Your task to perform on an android device: turn off sleep mode Image 0: 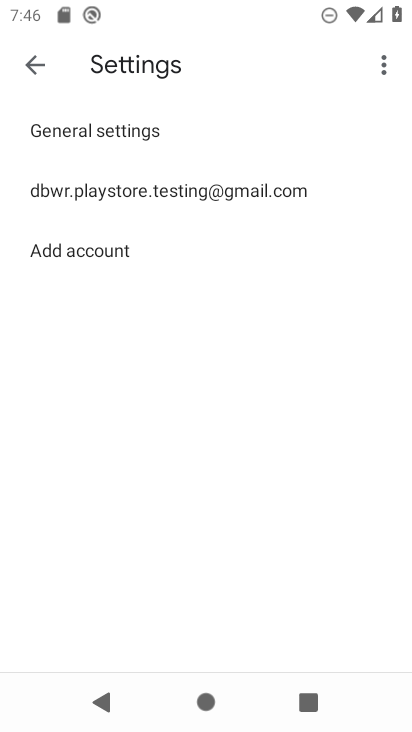
Step 0: press home button
Your task to perform on an android device: turn off sleep mode Image 1: 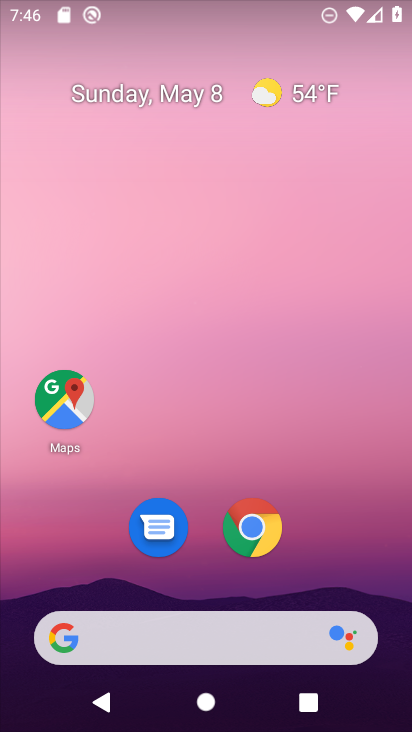
Step 1: drag from (341, 551) to (393, 108)
Your task to perform on an android device: turn off sleep mode Image 2: 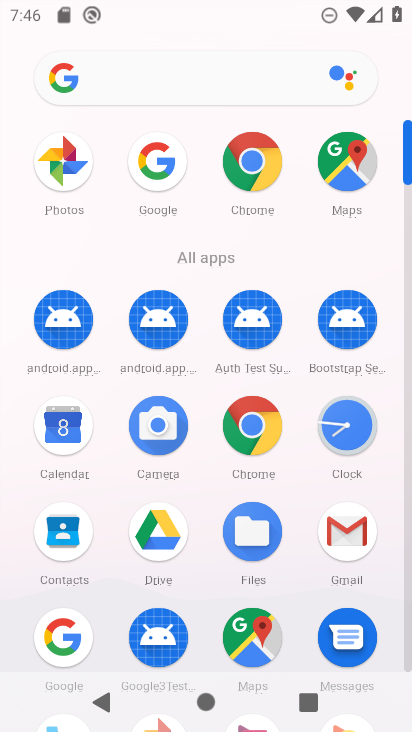
Step 2: drag from (292, 559) to (397, 134)
Your task to perform on an android device: turn off sleep mode Image 3: 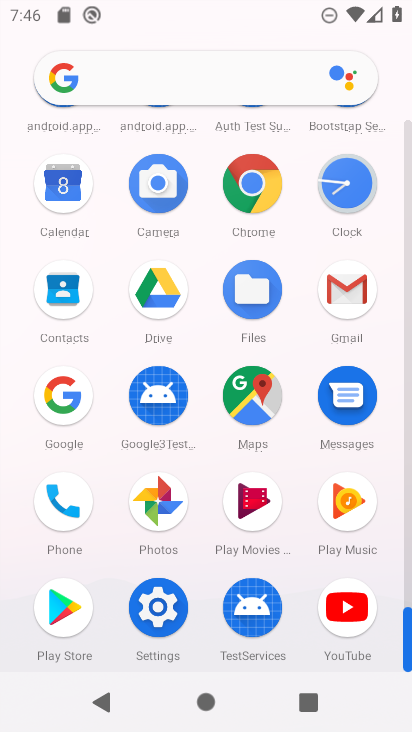
Step 3: click (145, 581)
Your task to perform on an android device: turn off sleep mode Image 4: 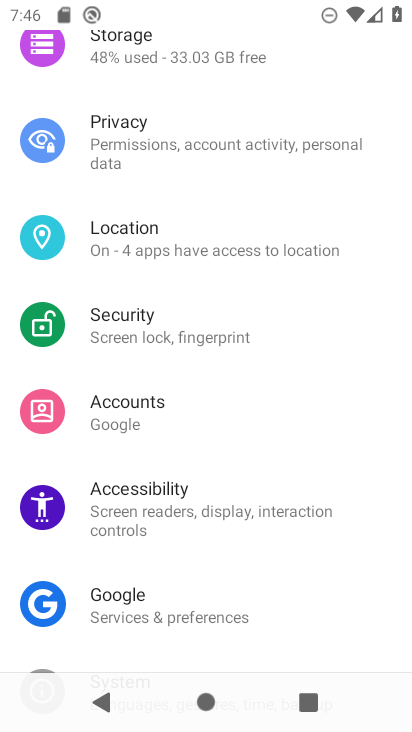
Step 4: drag from (285, 154) to (231, 460)
Your task to perform on an android device: turn off sleep mode Image 5: 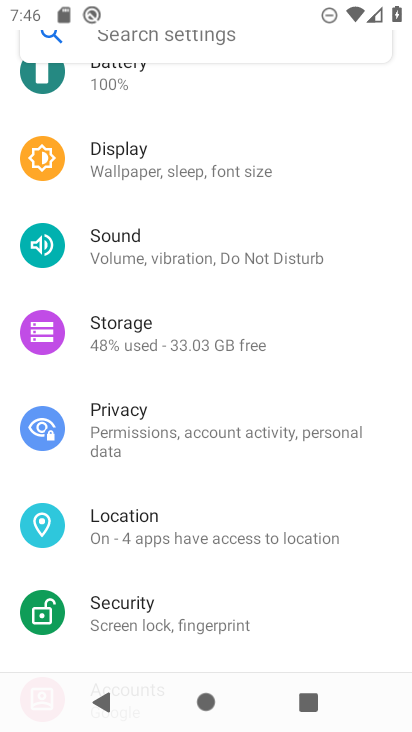
Step 5: click (252, 190)
Your task to perform on an android device: turn off sleep mode Image 6: 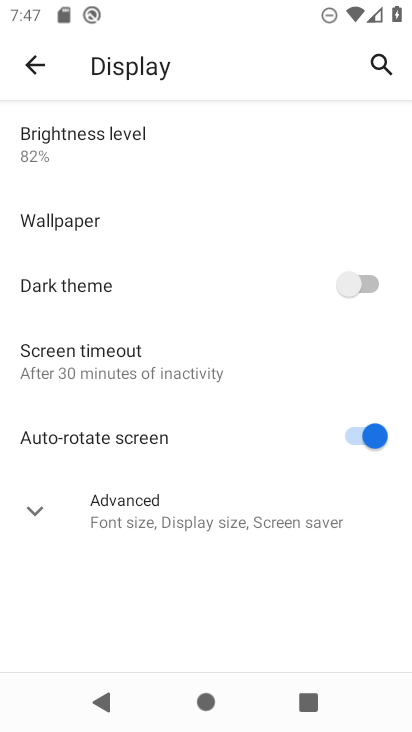
Step 6: click (105, 370)
Your task to perform on an android device: turn off sleep mode Image 7: 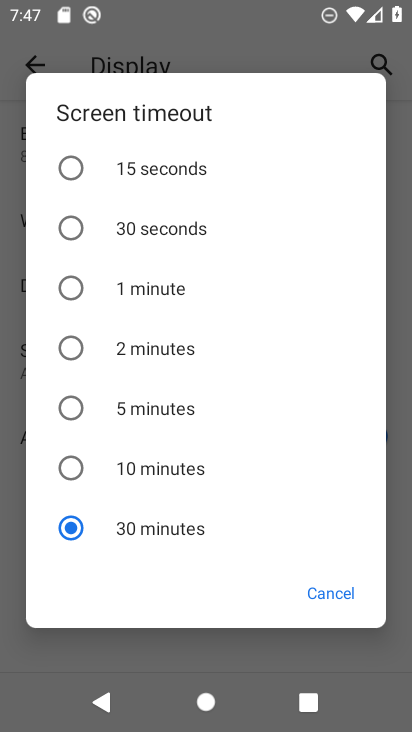
Step 7: task complete